Your task to perform on an android device: Clear the cart on amazon. Search for razer blackwidow on amazon, select the first entry, and add it to the cart. Image 0: 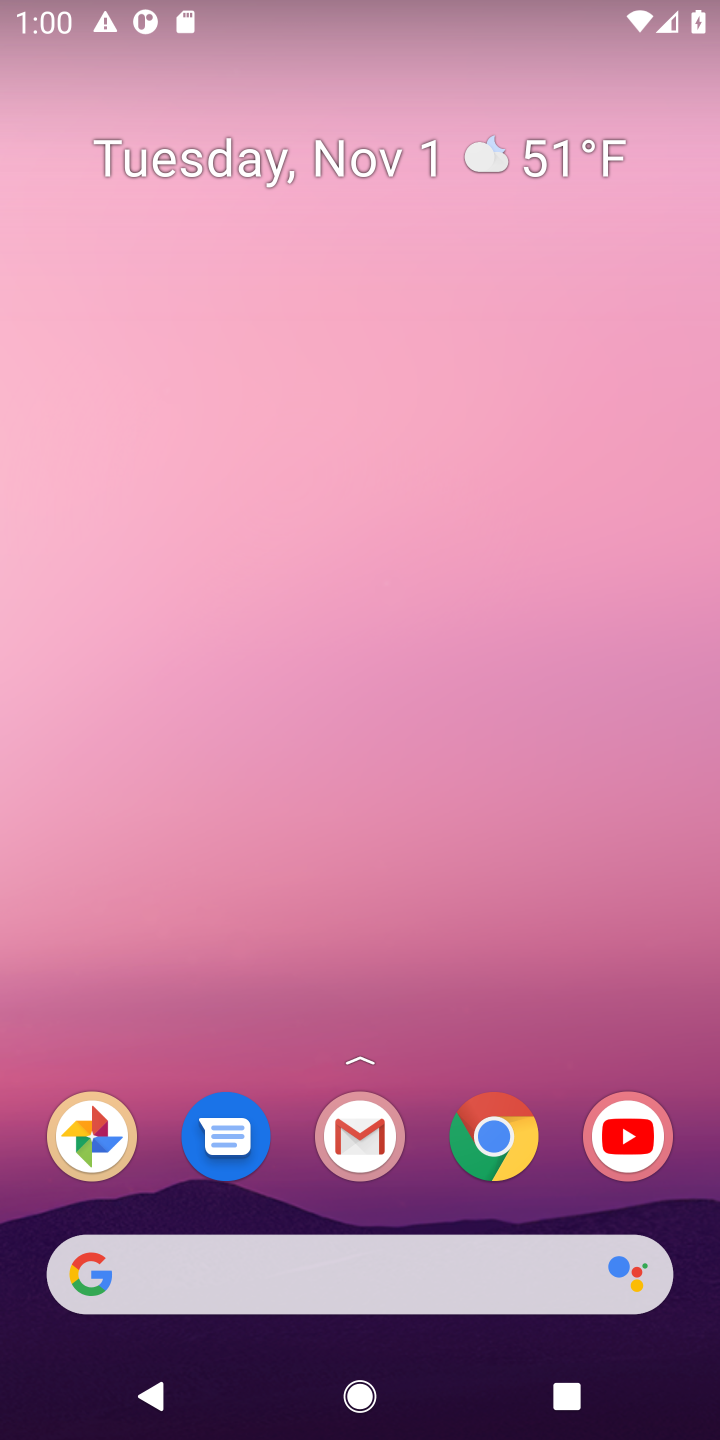
Step 0: press home button
Your task to perform on an android device: Clear the cart on amazon. Search for razer blackwidow on amazon, select the first entry, and add it to the cart. Image 1: 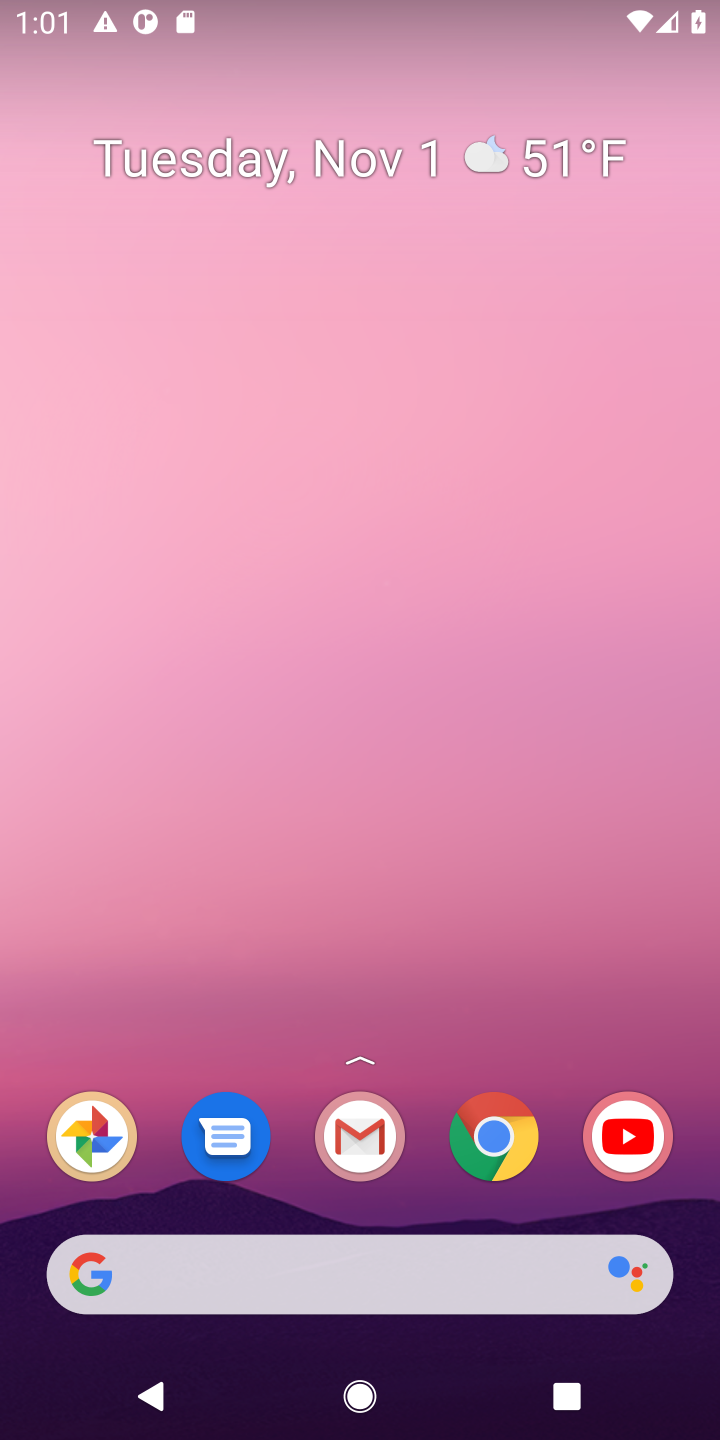
Step 1: click (197, 1272)
Your task to perform on an android device: Clear the cart on amazon. Search for razer blackwidow on amazon, select the first entry, and add it to the cart. Image 2: 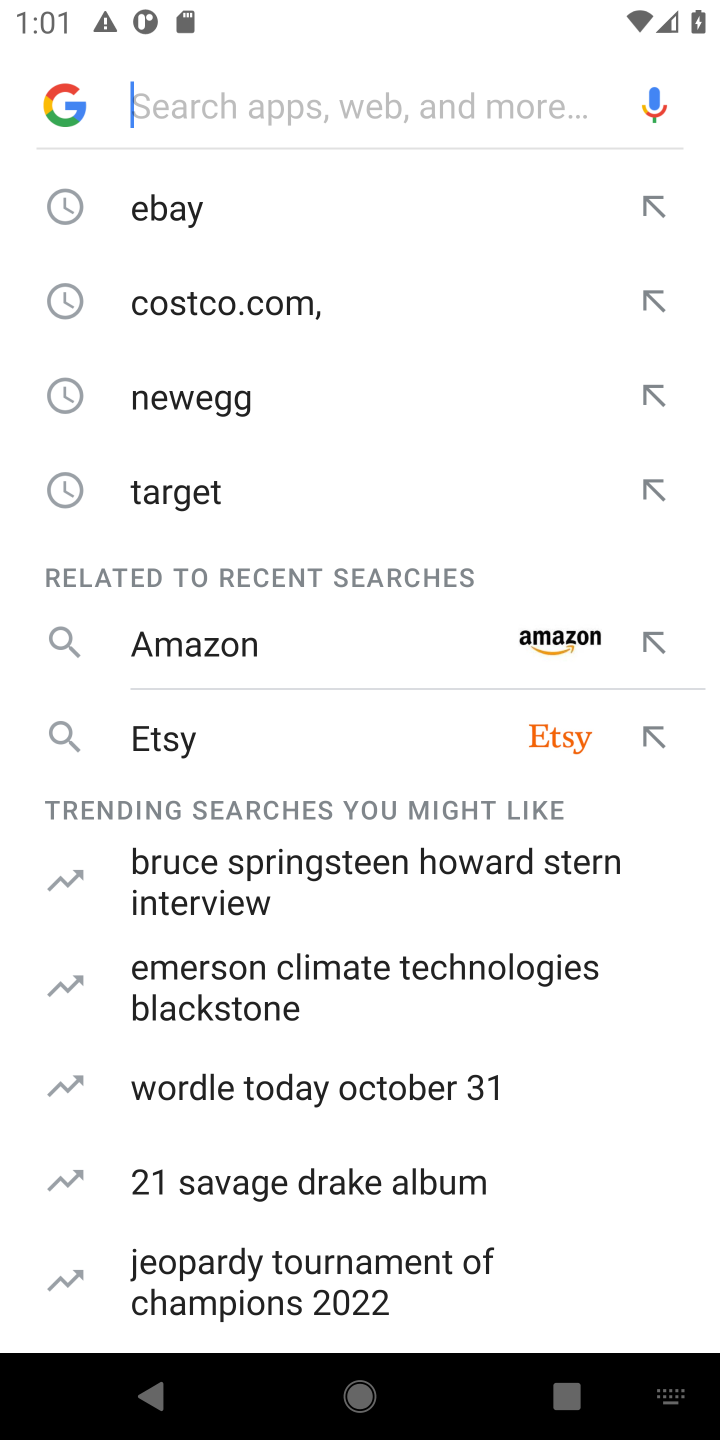
Step 2: type "amazon"
Your task to perform on an android device: Clear the cart on amazon. Search for razer blackwidow on amazon, select the first entry, and add it to the cart. Image 3: 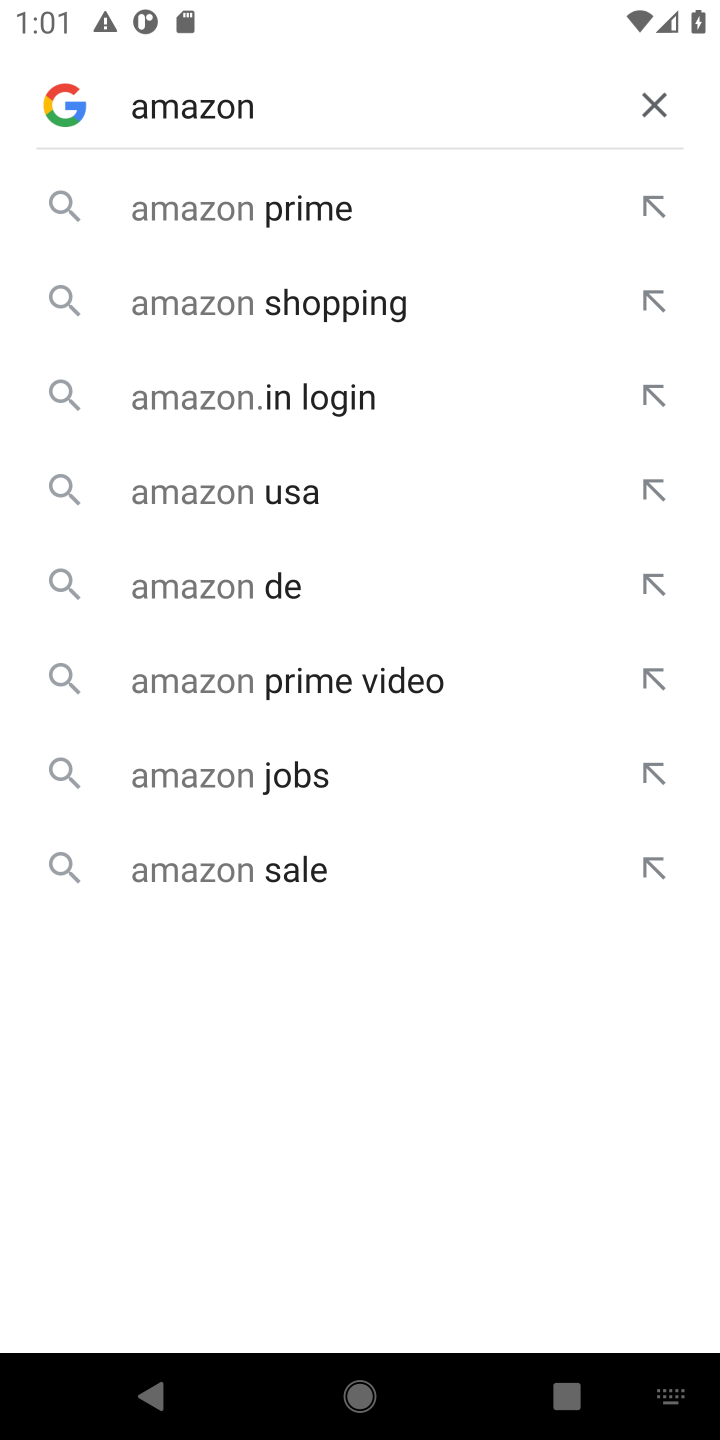
Step 3: press enter
Your task to perform on an android device: Clear the cart on amazon. Search for razer blackwidow on amazon, select the first entry, and add it to the cart. Image 4: 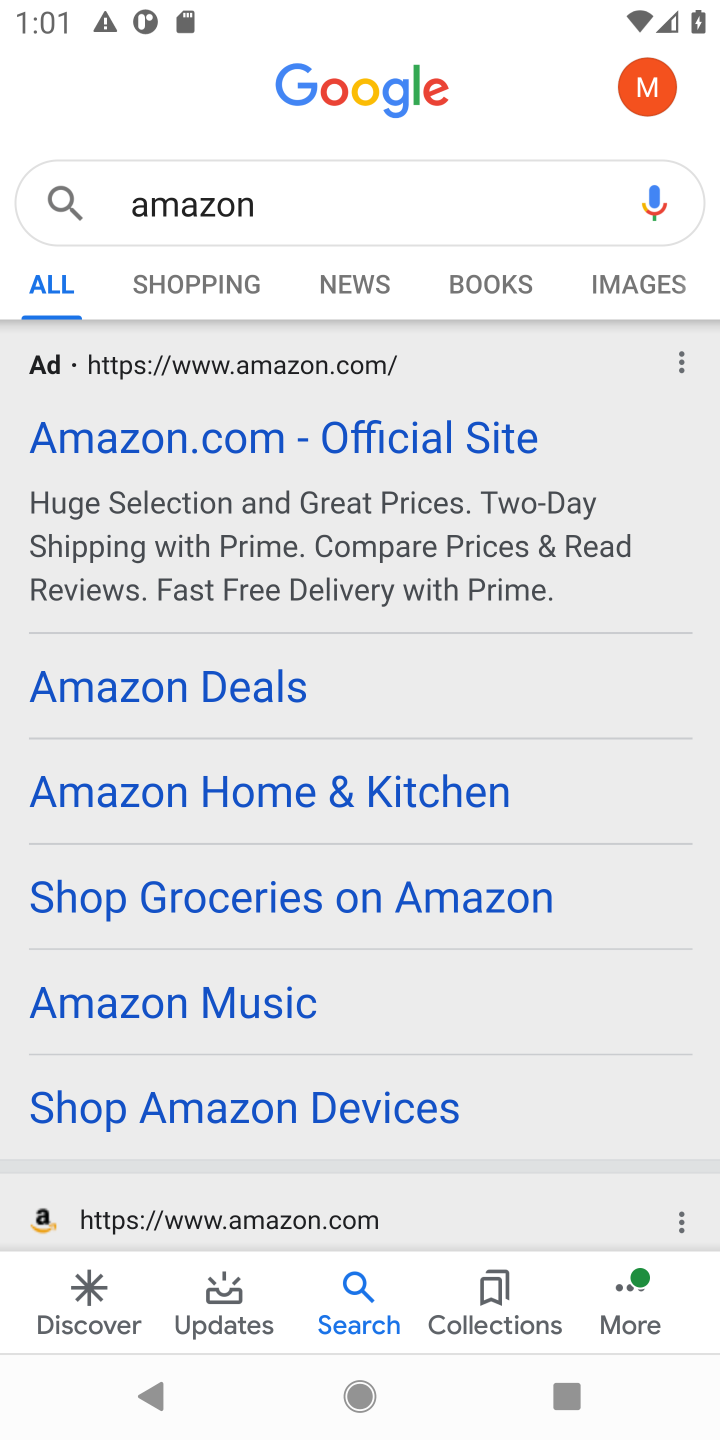
Step 4: click (266, 424)
Your task to perform on an android device: Clear the cart on amazon. Search for razer blackwidow on amazon, select the first entry, and add it to the cart. Image 5: 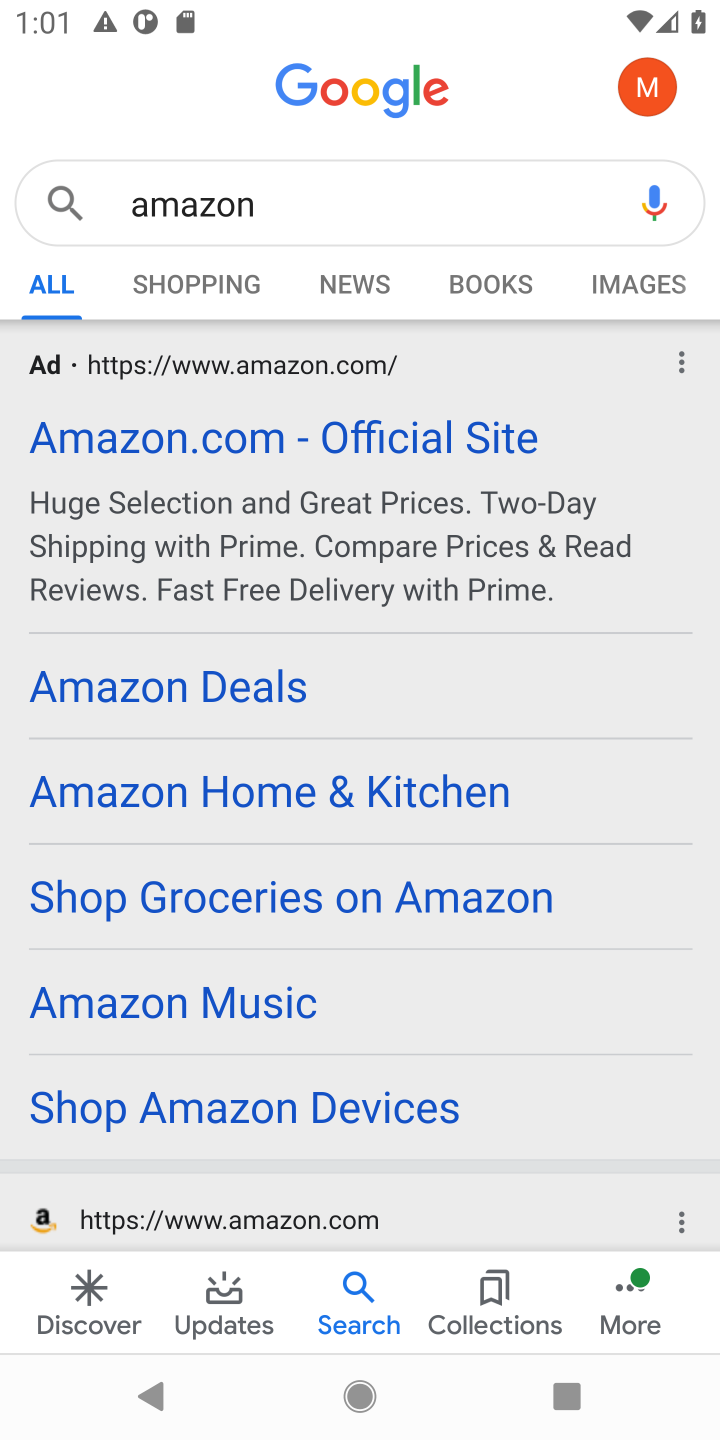
Step 5: click (214, 435)
Your task to perform on an android device: Clear the cart on amazon. Search for razer blackwidow on amazon, select the first entry, and add it to the cart. Image 6: 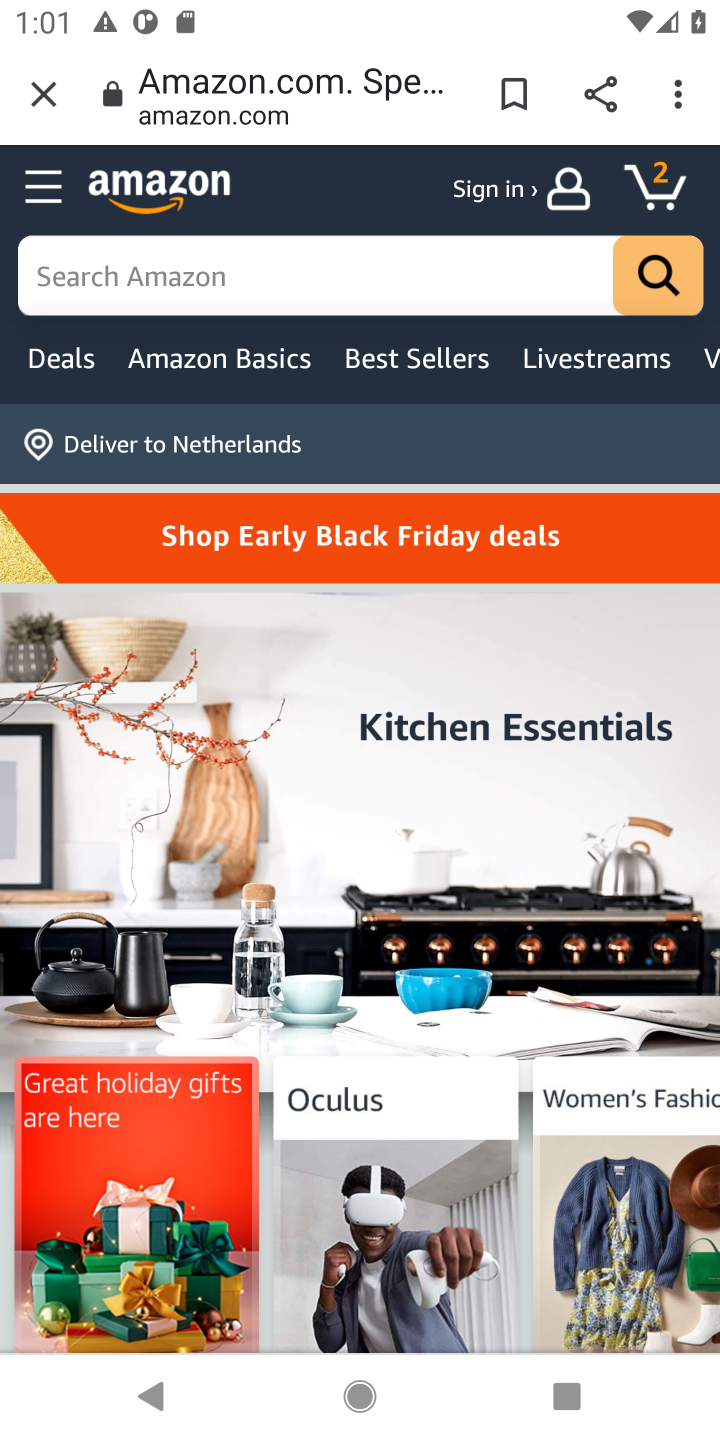
Step 6: click (100, 269)
Your task to perform on an android device: Clear the cart on amazon. Search for razer blackwidow on amazon, select the first entry, and add it to the cart. Image 7: 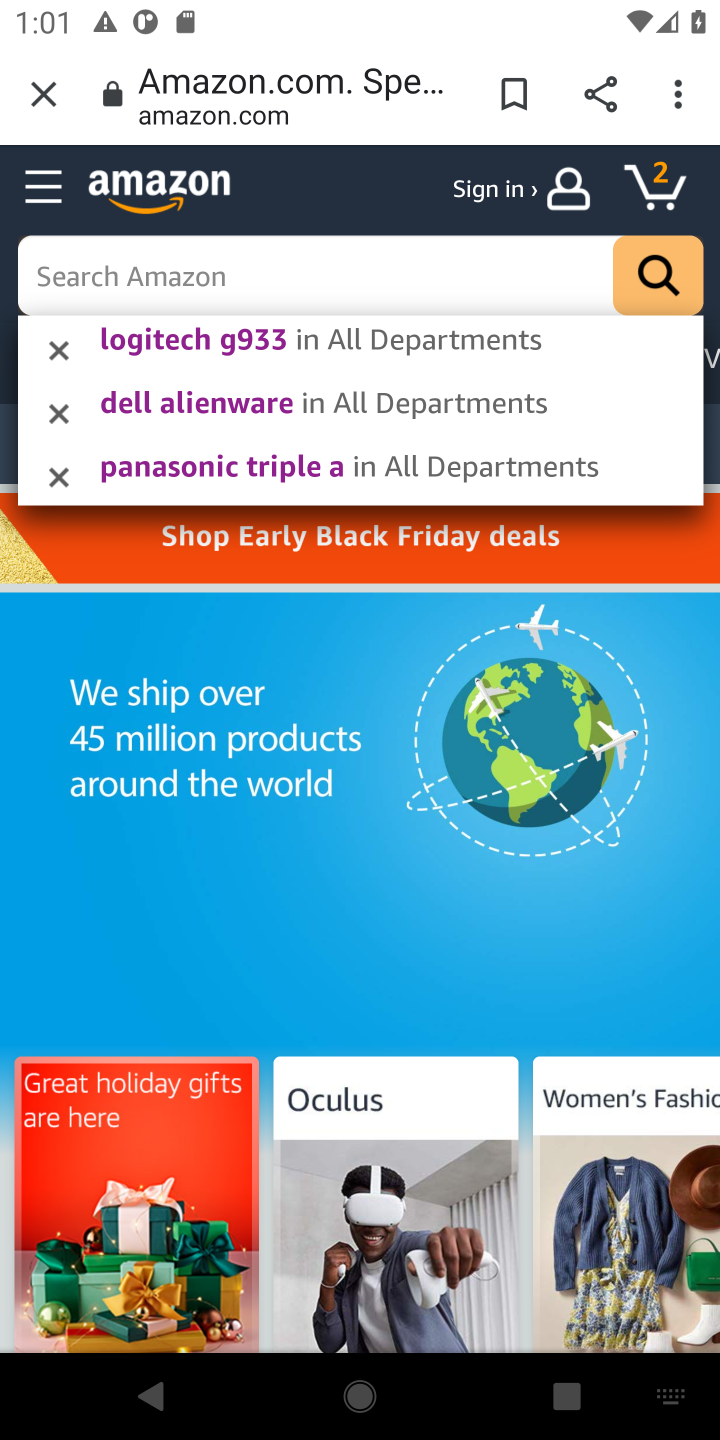
Step 7: click (657, 182)
Your task to perform on an android device: Clear the cart on amazon. Search for razer blackwidow on amazon, select the first entry, and add it to the cart. Image 8: 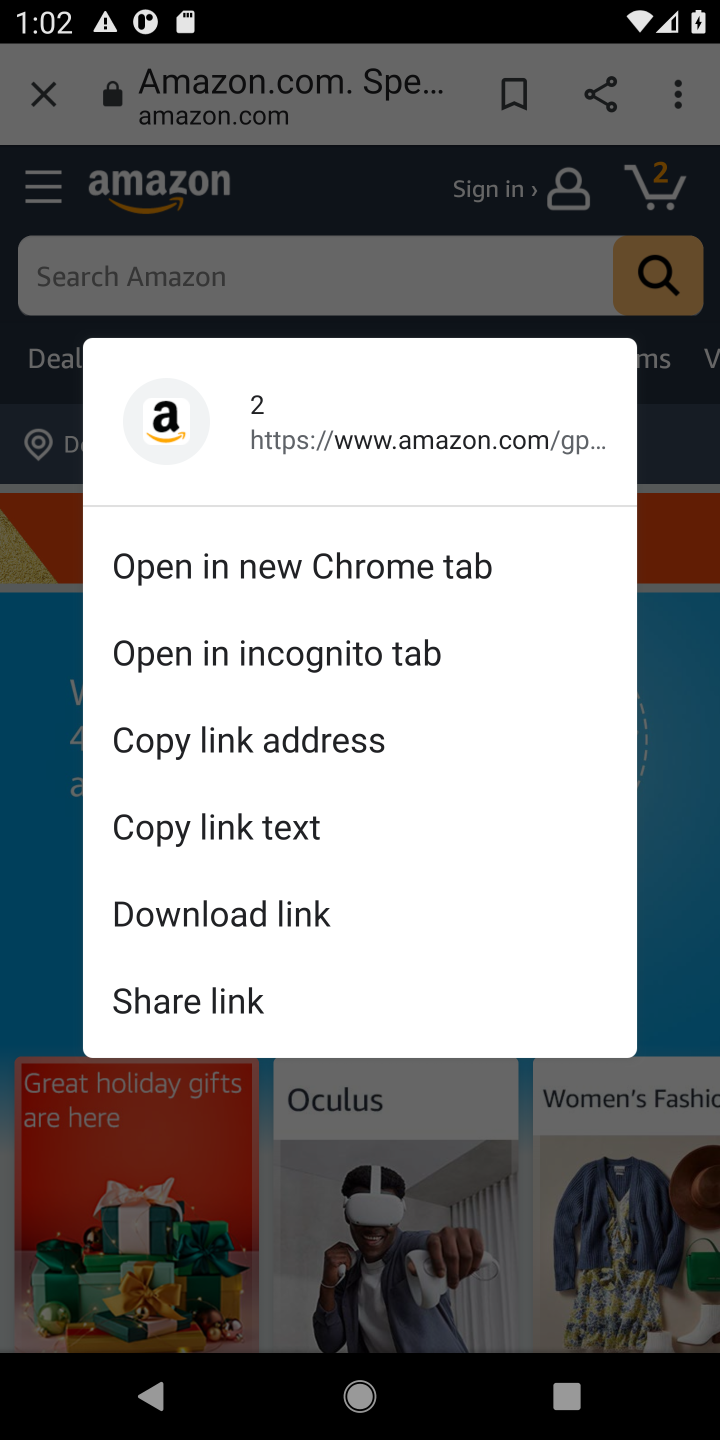
Step 8: click (691, 707)
Your task to perform on an android device: Clear the cart on amazon. Search for razer blackwidow on amazon, select the first entry, and add it to the cart. Image 9: 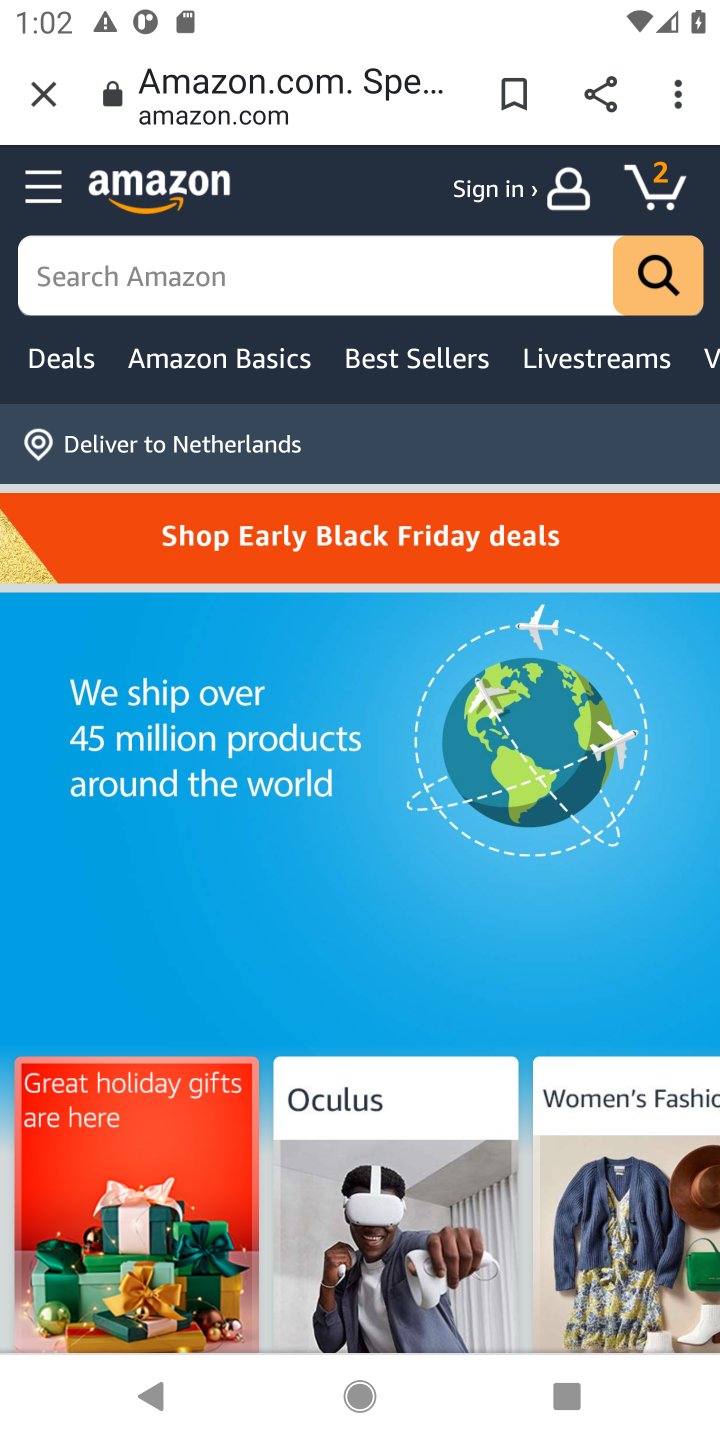
Step 9: click (659, 180)
Your task to perform on an android device: Clear the cart on amazon. Search for razer blackwidow on amazon, select the first entry, and add it to the cart. Image 10: 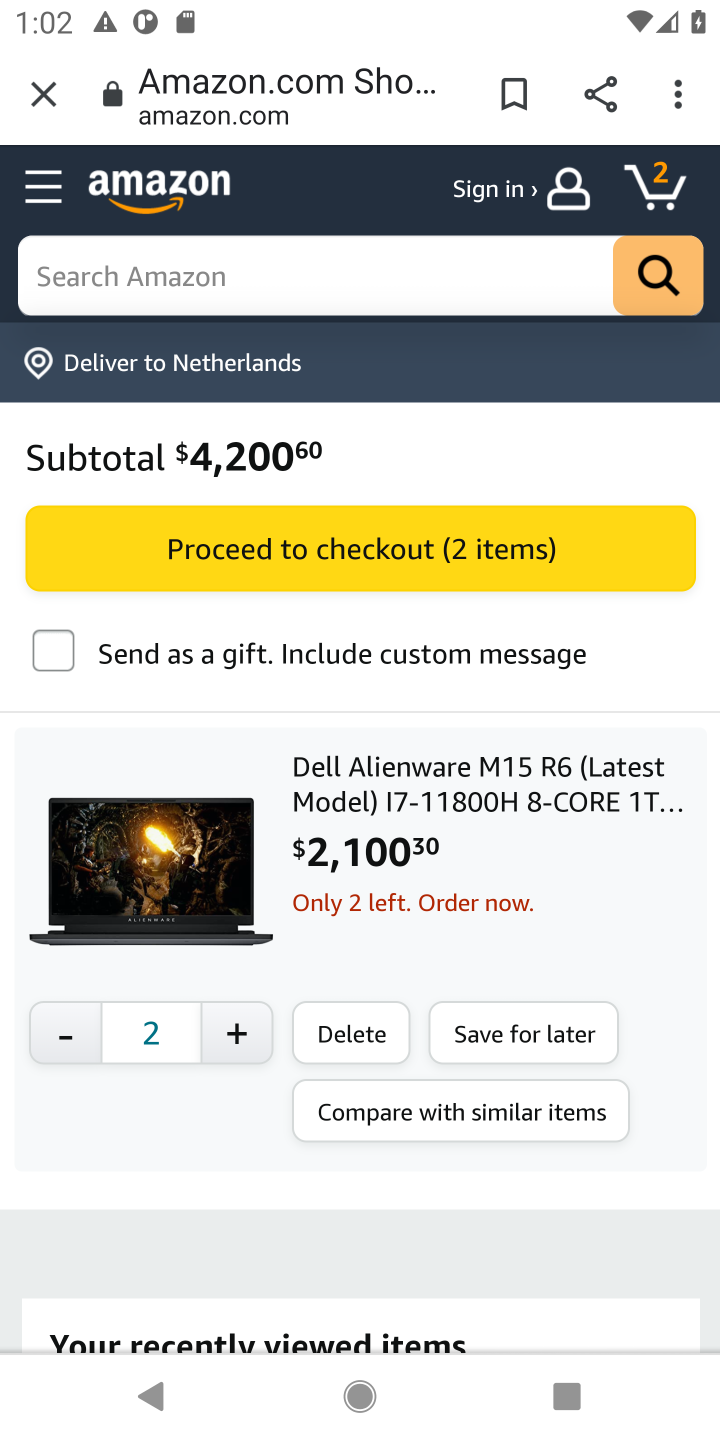
Step 10: click (355, 1030)
Your task to perform on an android device: Clear the cart on amazon. Search for razer blackwidow on amazon, select the first entry, and add it to the cart. Image 11: 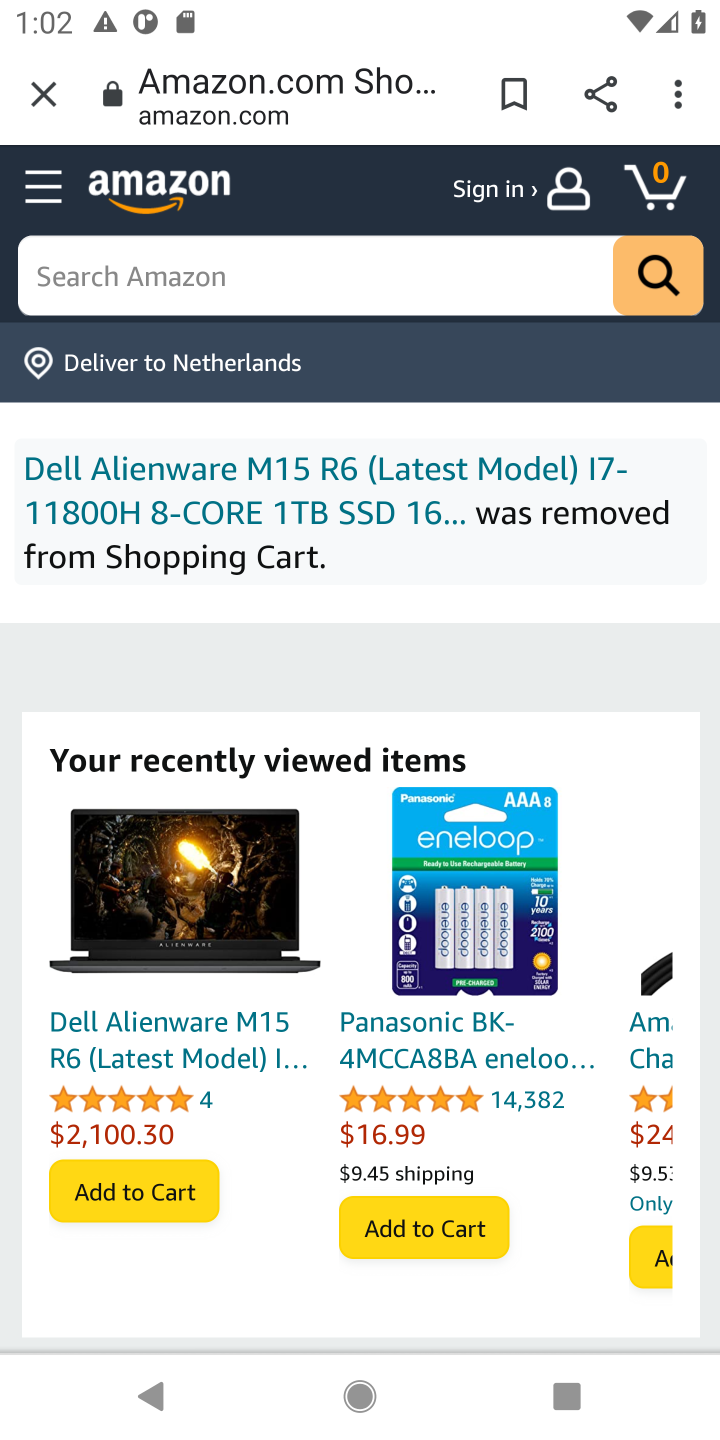
Step 11: click (256, 283)
Your task to perform on an android device: Clear the cart on amazon. Search for razer blackwidow on amazon, select the first entry, and add it to the cart. Image 12: 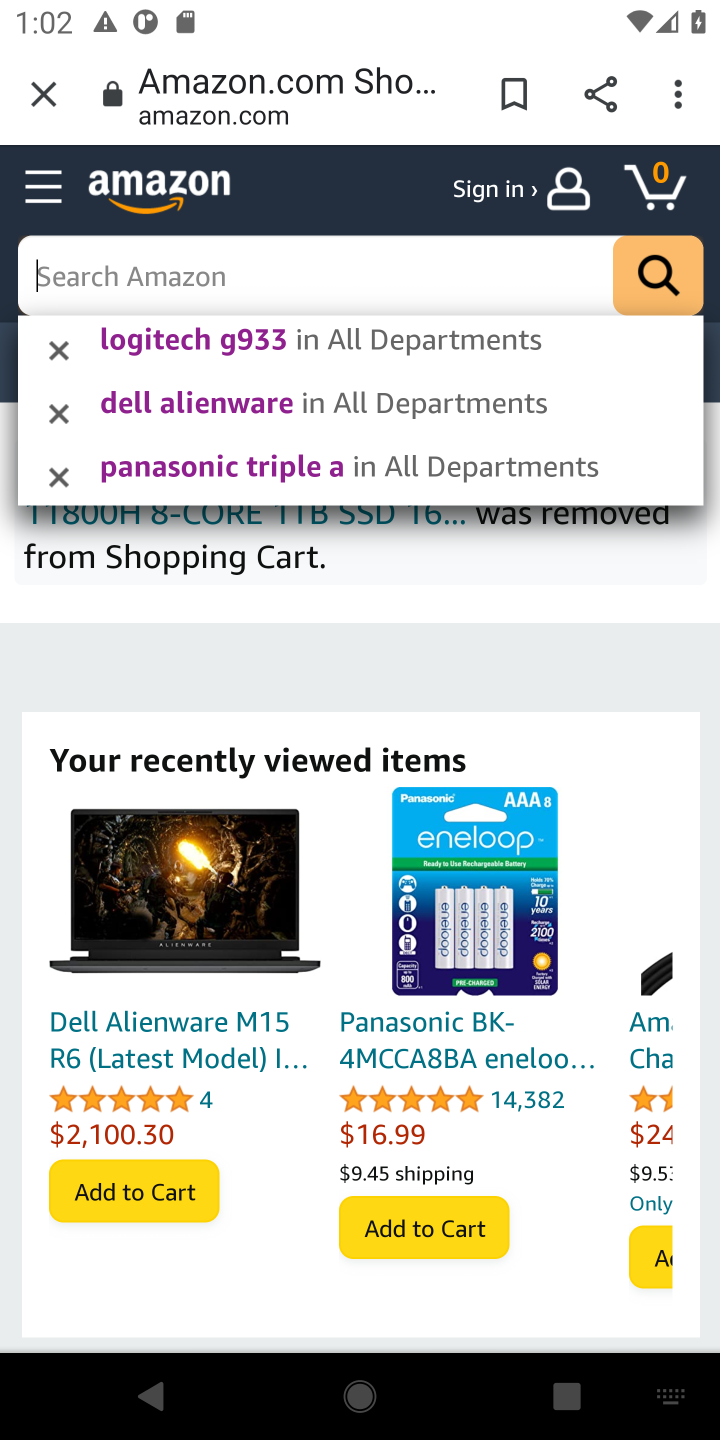
Step 12: type "razer blackwidow"
Your task to perform on an android device: Clear the cart on amazon. Search for razer blackwidow on amazon, select the first entry, and add it to the cart. Image 13: 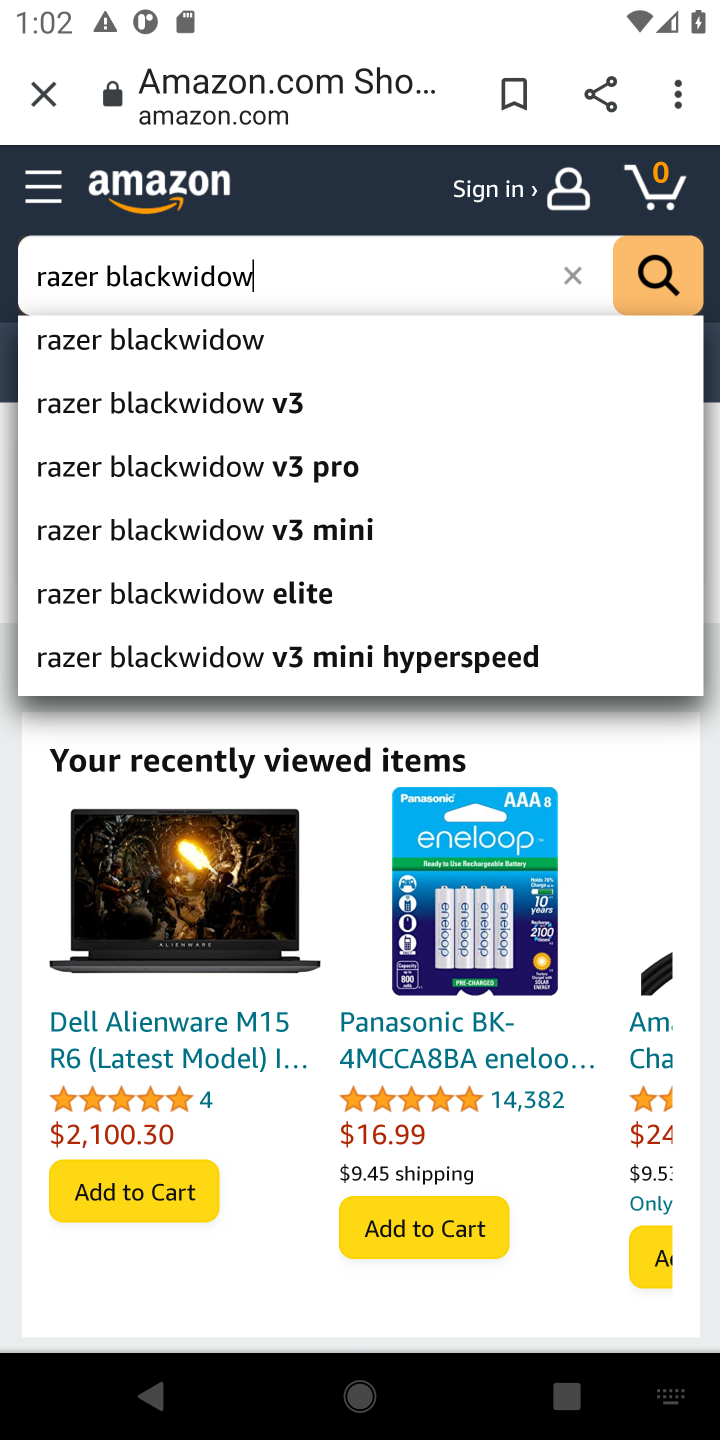
Step 13: click (641, 258)
Your task to perform on an android device: Clear the cart on amazon. Search for razer blackwidow on amazon, select the first entry, and add it to the cart. Image 14: 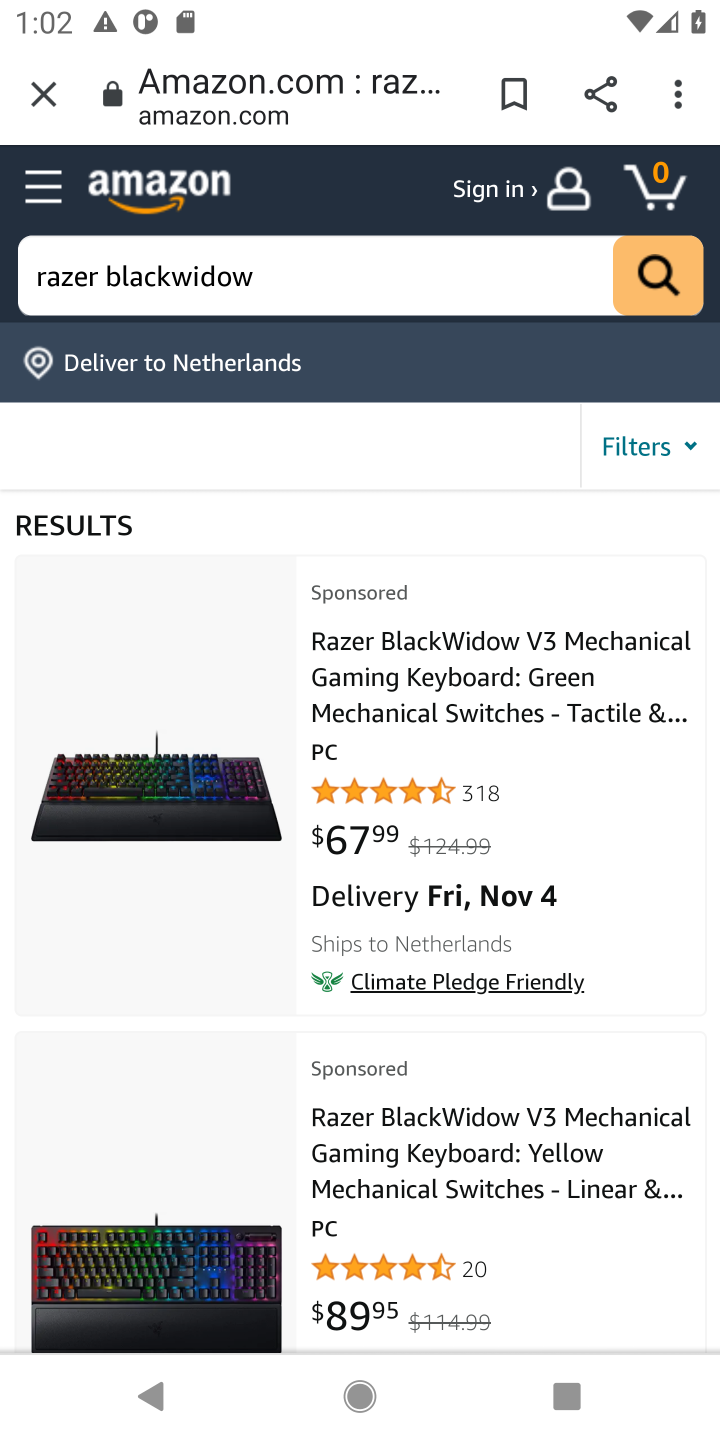
Step 14: click (508, 669)
Your task to perform on an android device: Clear the cart on amazon. Search for razer blackwidow on amazon, select the first entry, and add it to the cart. Image 15: 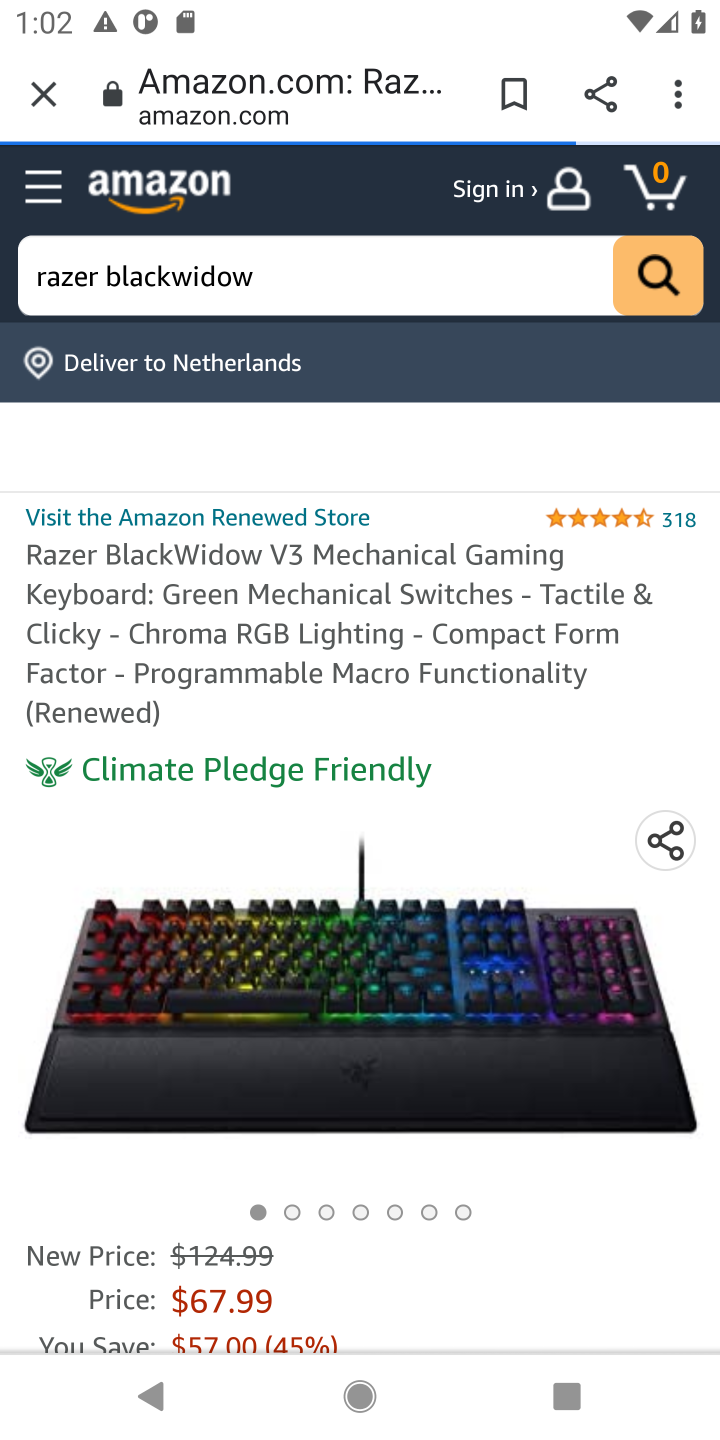
Step 15: drag from (433, 1157) to (510, 565)
Your task to perform on an android device: Clear the cart on amazon. Search for razer blackwidow on amazon, select the first entry, and add it to the cart. Image 16: 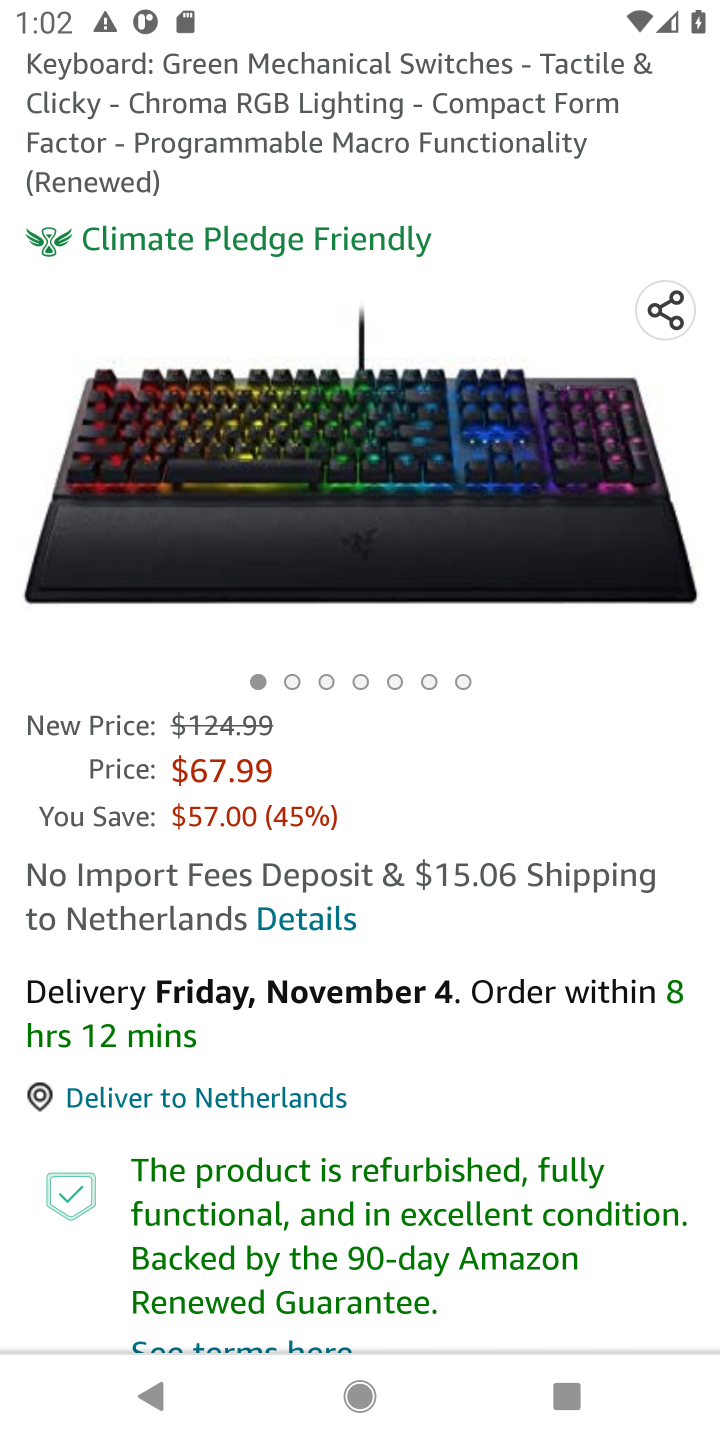
Step 16: drag from (401, 1146) to (437, 686)
Your task to perform on an android device: Clear the cart on amazon. Search for razer blackwidow on amazon, select the first entry, and add it to the cart. Image 17: 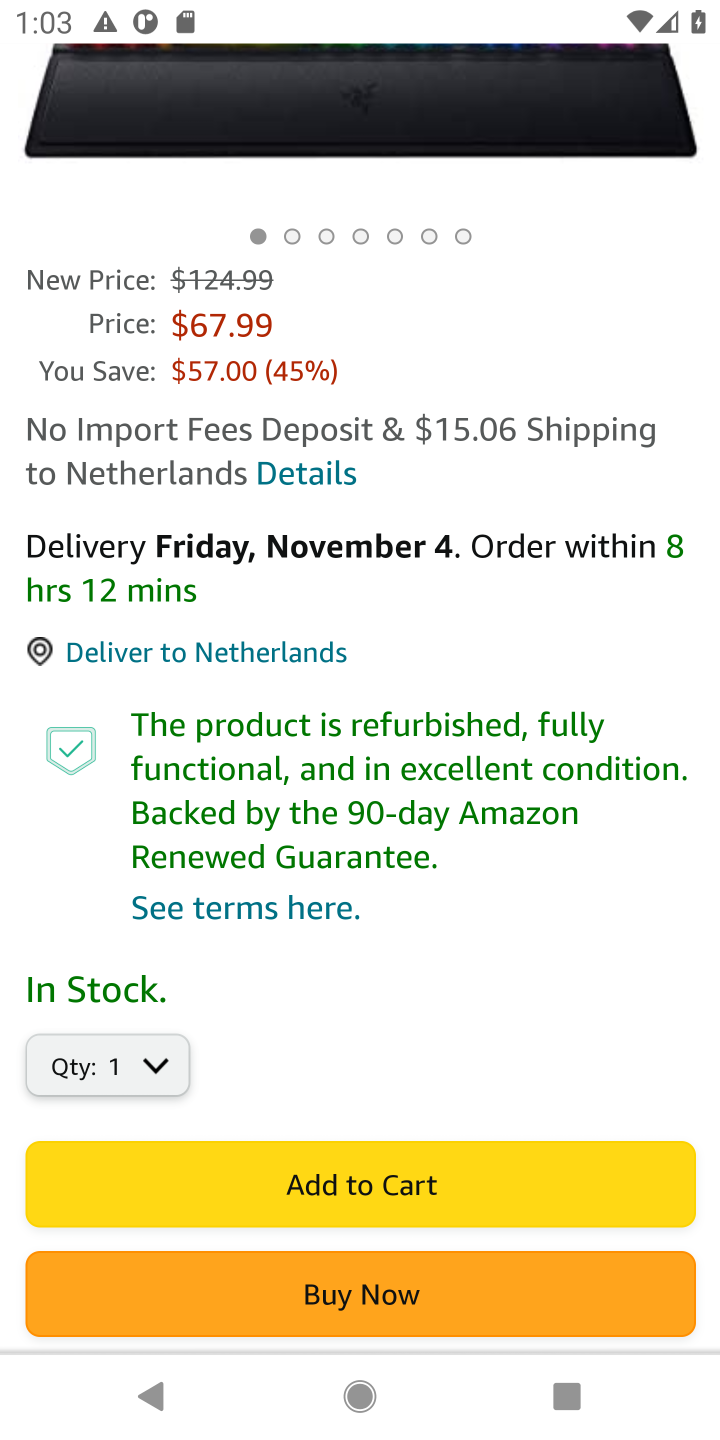
Step 17: drag from (429, 962) to (463, 534)
Your task to perform on an android device: Clear the cart on amazon. Search for razer blackwidow on amazon, select the first entry, and add it to the cart. Image 18: 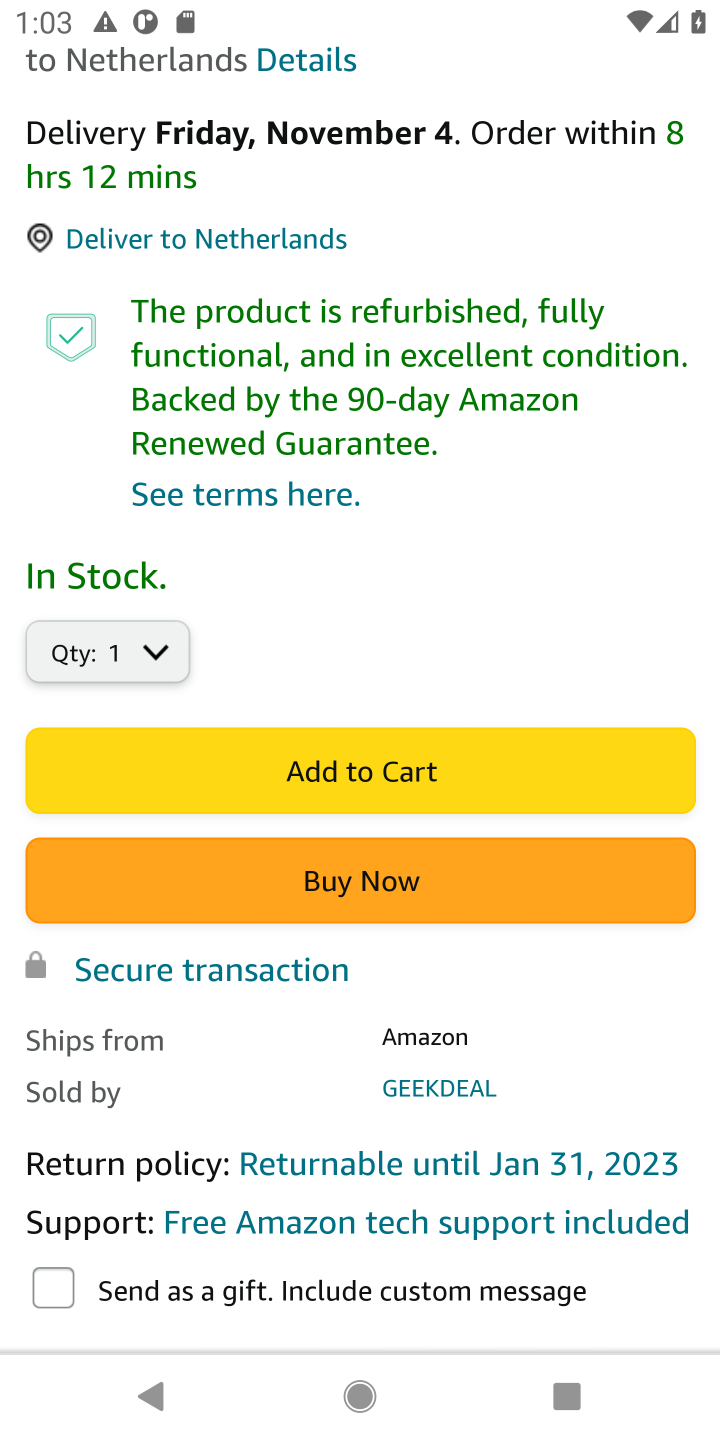
Step 18: click (366, 782)
Your task to perform on an android device: Clear the cart on amazon. Search for razer blackwidow on amazon, select the first entry, and add it to the cart. Image 19: 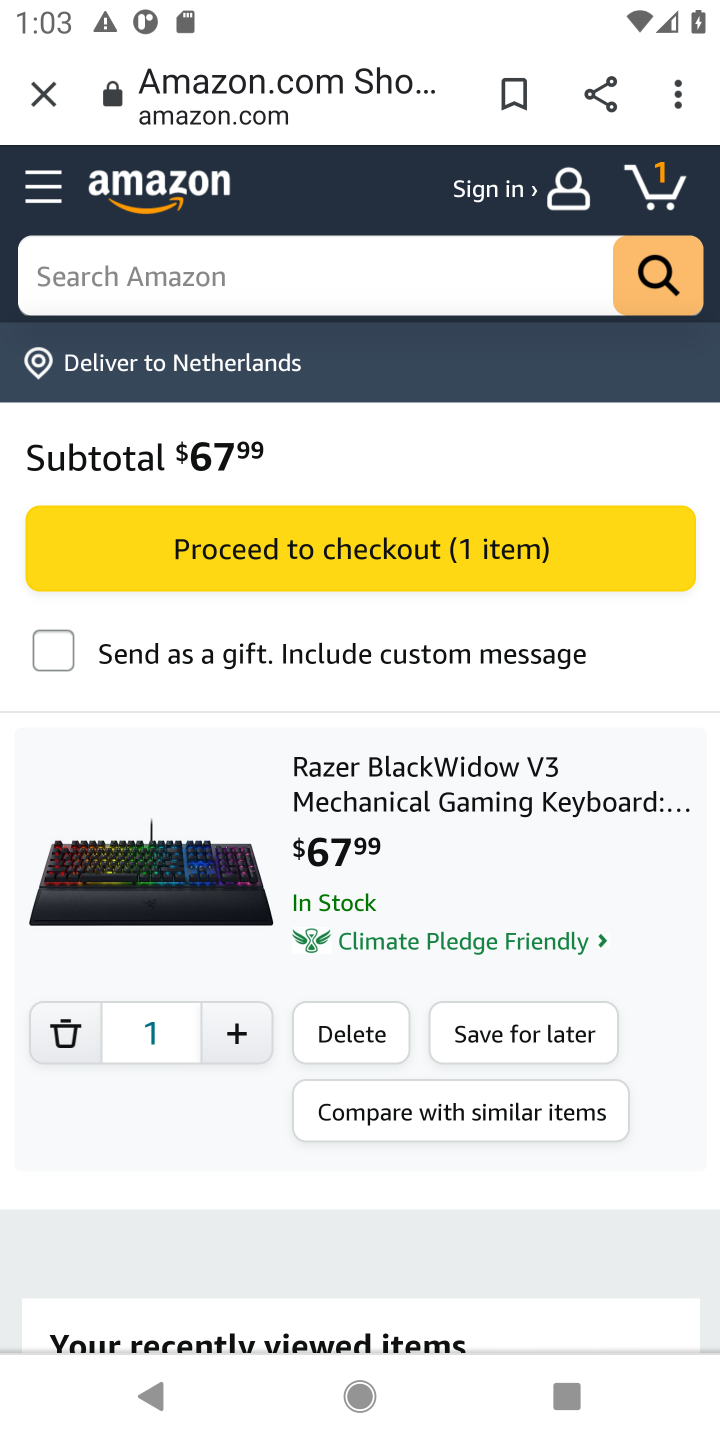
Step 19: task complete